Your task to perform on an android device: open app "Expedia: Hotels, Flights & Car" (install if not already installed) Image 0: 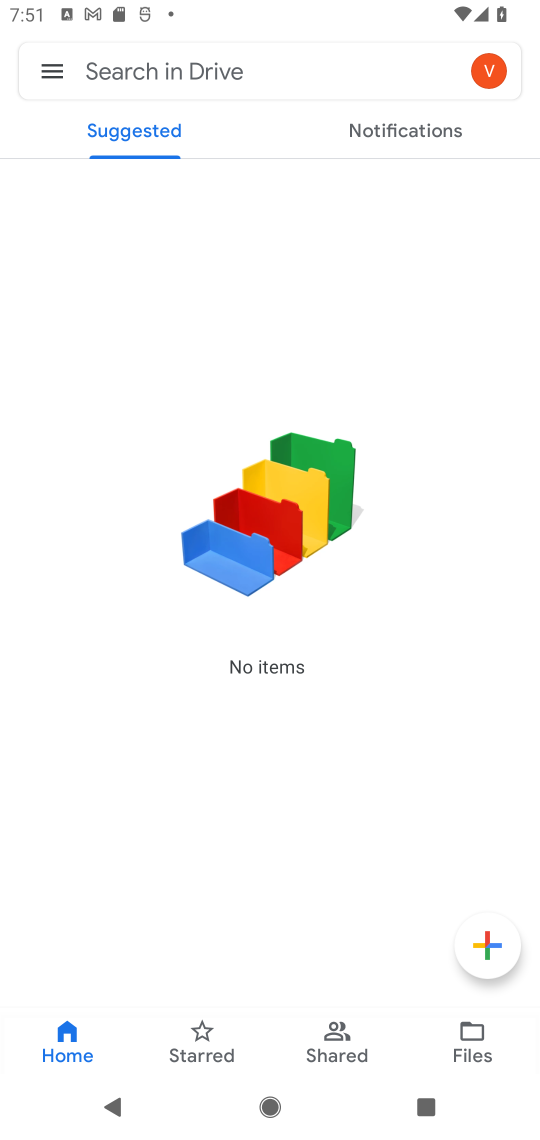
Step 0: press back button
Your task to perform on an android device: open app "Expedia: Hotels, Flights & Car" (install if not already installed) Image 1: 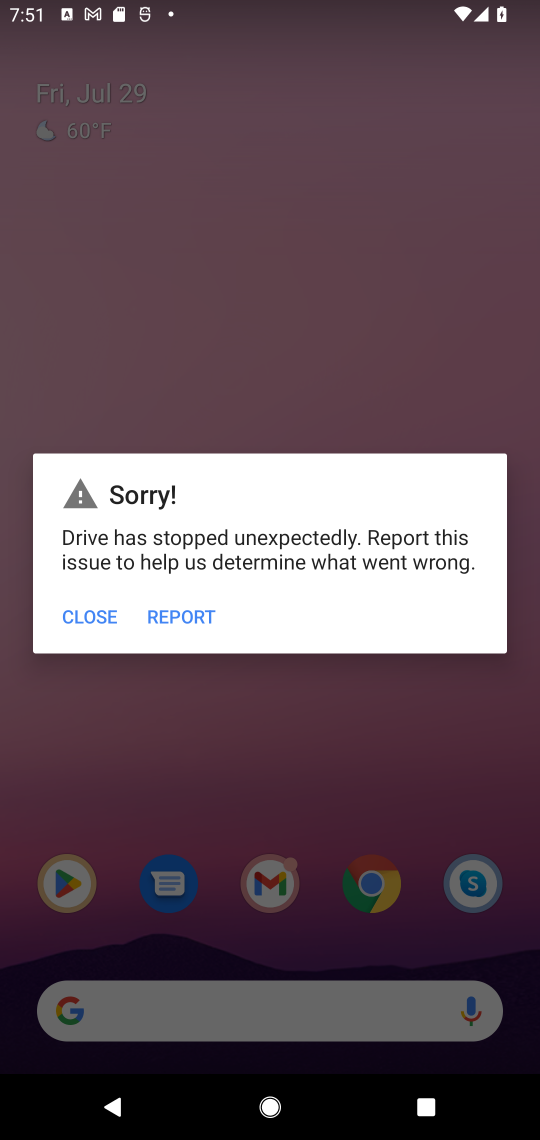
Step 1: click (82, 608)
Your task to perform on an android device: open app "Expedia: Hotels, Flights & Car" (install if not already installed) Image 2: 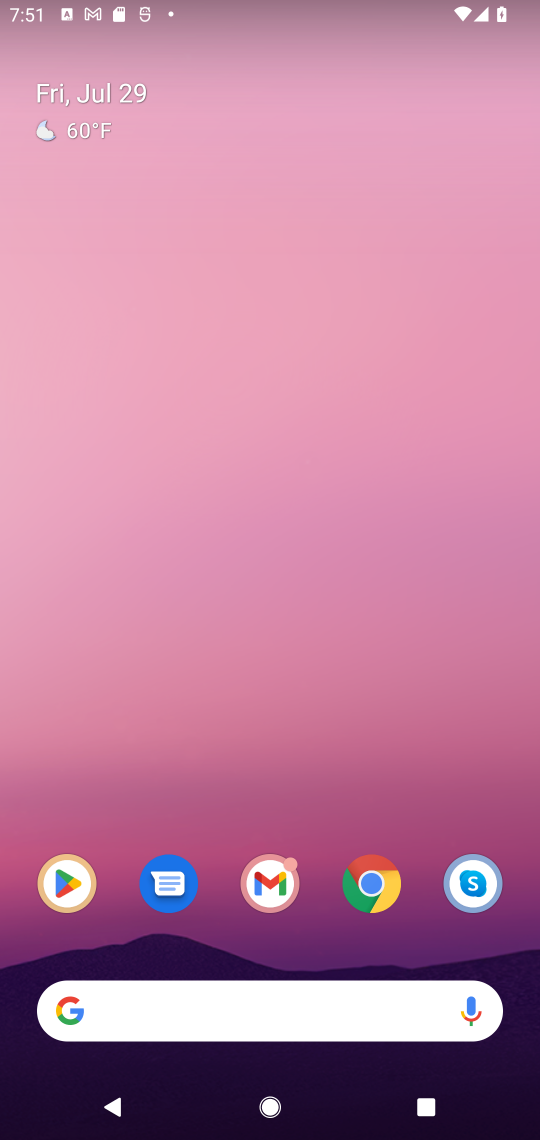
Step 2: click (55, 887)
Your task to perform on an android device: open app "Expedia: Hotels, Flights & Car" (install if not already installed) Image 3: 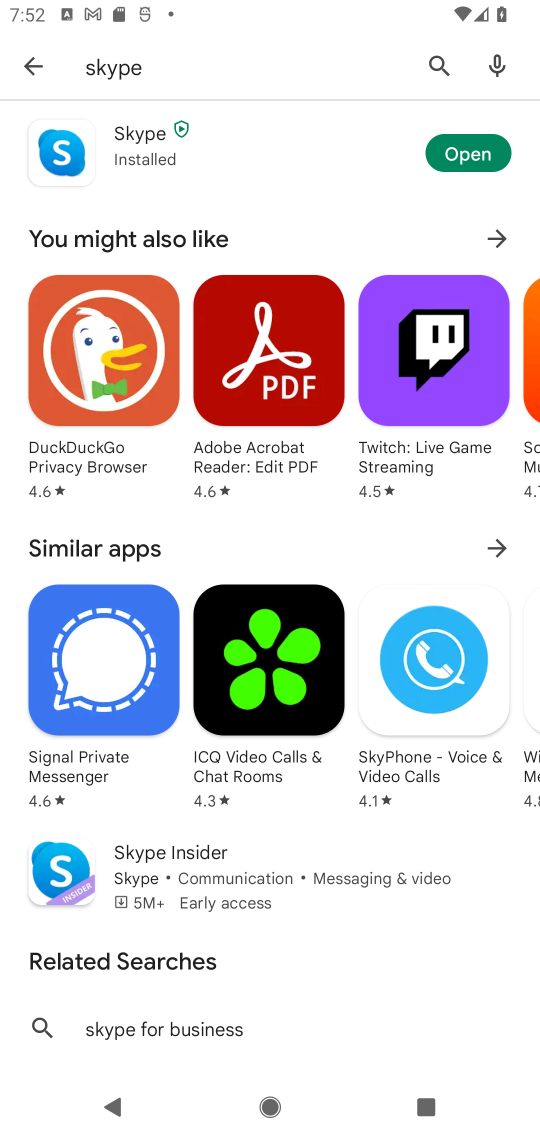
Step 3: click (431, 58)
Your task to perform on an android device: open app "Expedia: Hotels, Flights & Car" (install if not already installed) Image 4: 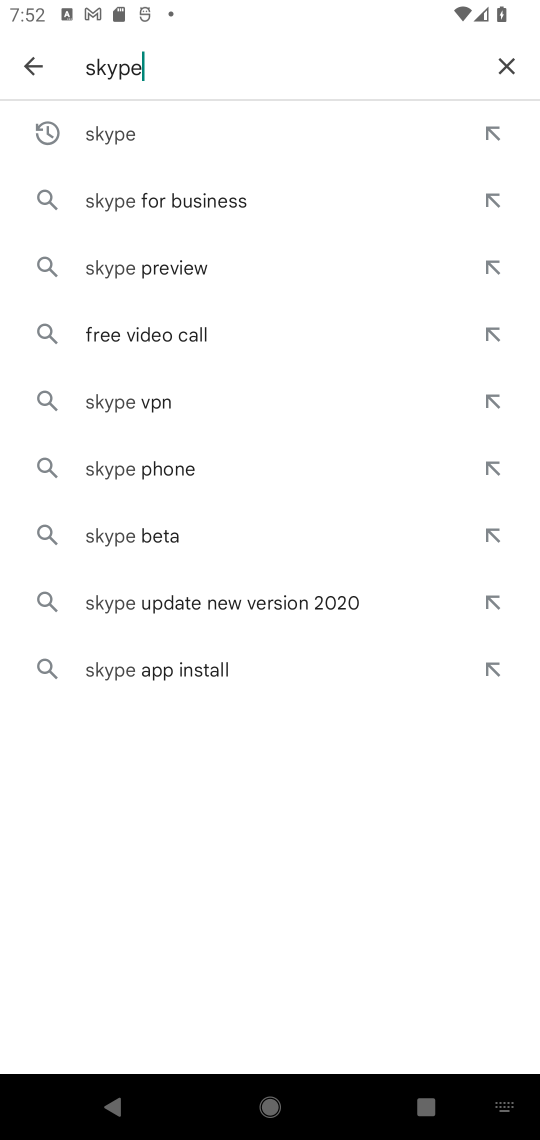
Step 4: click (512, 69)
Your task to perform on an android device: open app "Expedia: Hotels, Flights & Car" (install if not already installed) Image 5: 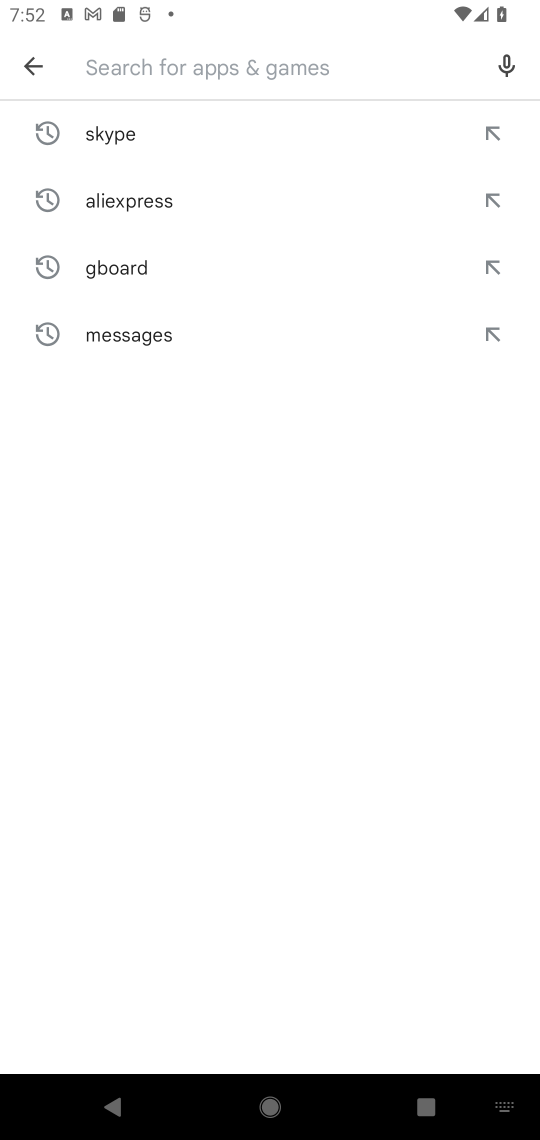
Step 5: type "expedia"
Your task to perform on an android device: open app "Expedia: Hotels, Flights & Car" (install if not already installed) Image 6: 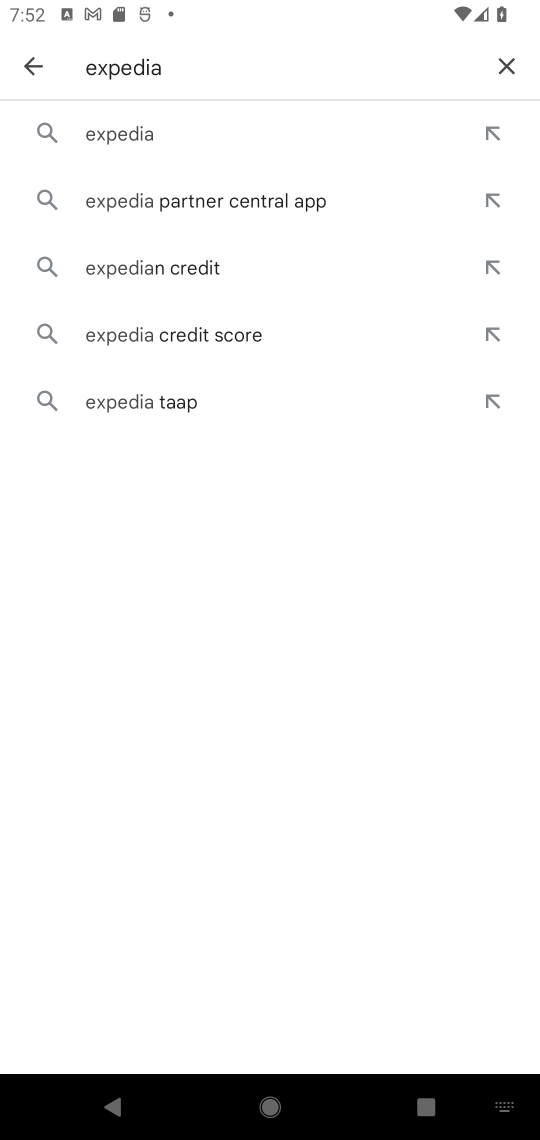
Step 6: click (157, 121)
Your task to perform on an android device: open app "Expedia: Hotels, Flights & Car" (install if not already installed) Image 7: 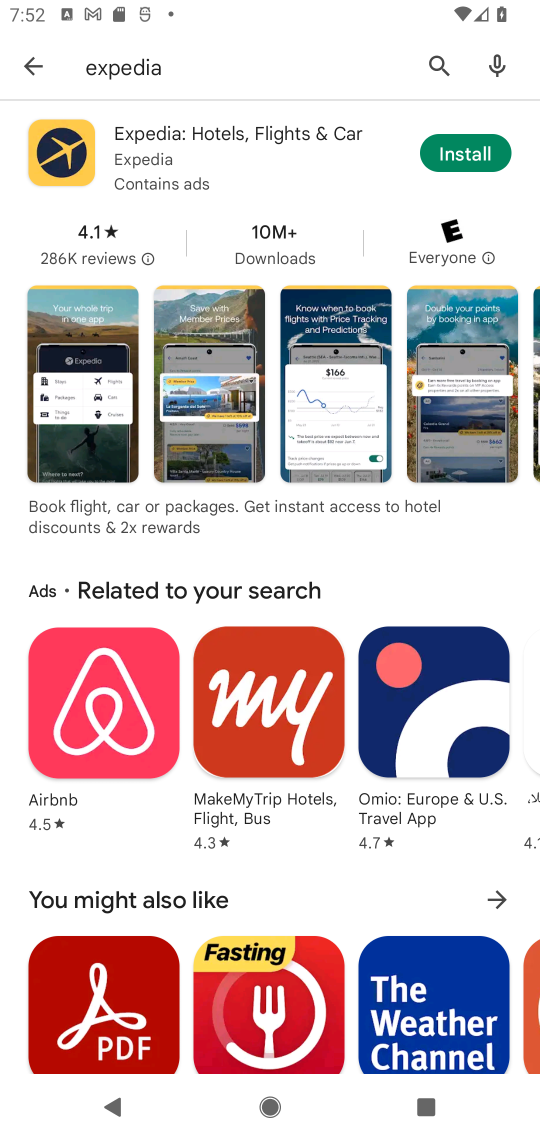
Step 7: click (472, 149)
Your task to perform on an android device: open app "Expedia: Hotels, Flights & Car" (install if not already installed) Image 8: 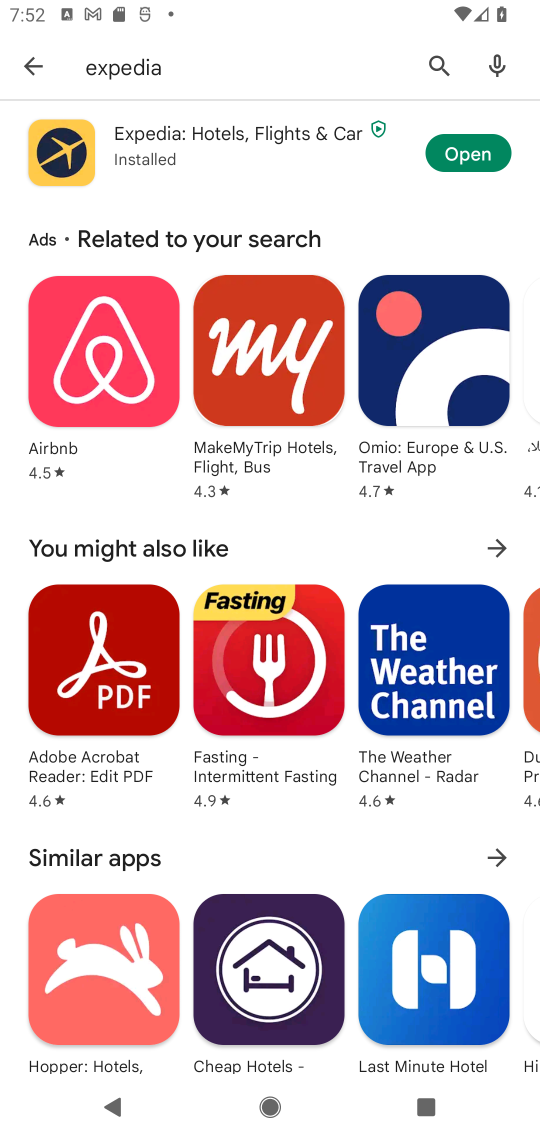
Step 8: click (464, 165)
Your task to perform on an android device: open app "Expedia: Hotels, Flights & Car" (install if not already installed) Image 9: 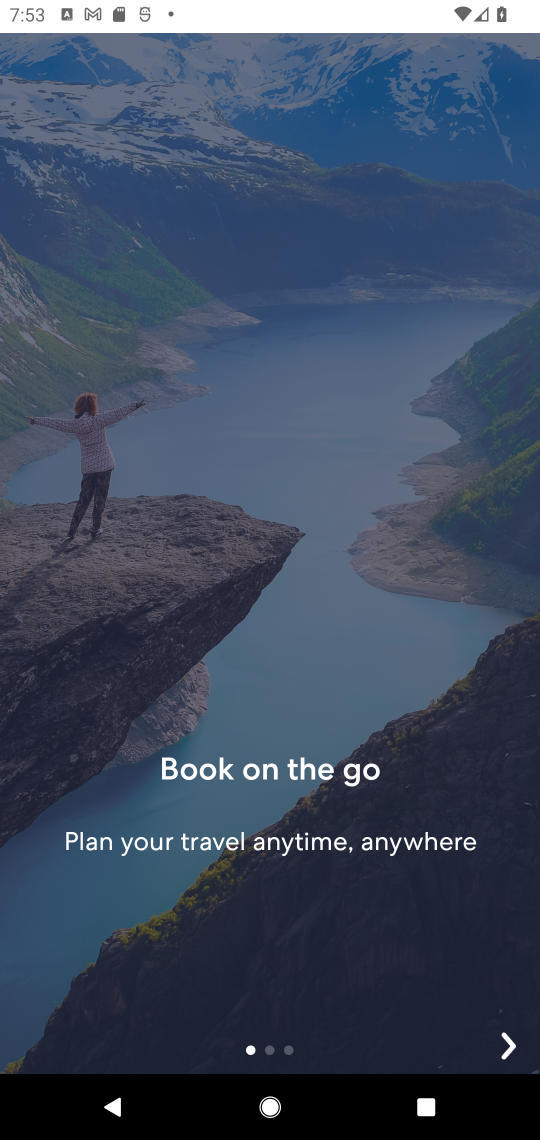
Step 9: task complete